Your task to perform on an android device: Open ESPN.com Image 0: 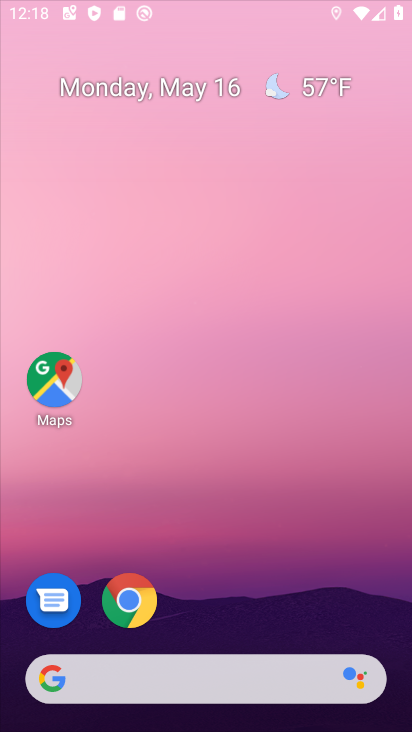
Step 0: drag from (255, 587) to (308, 82)
Your task to perform on an android device: Open ESPN.com Image 1: 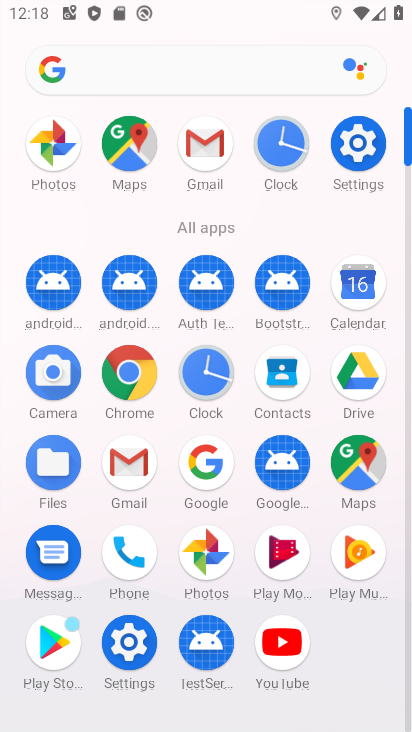
Step 1: click (132, 356)
Your task to perform on an android device: Open ESPN.com Image 2: 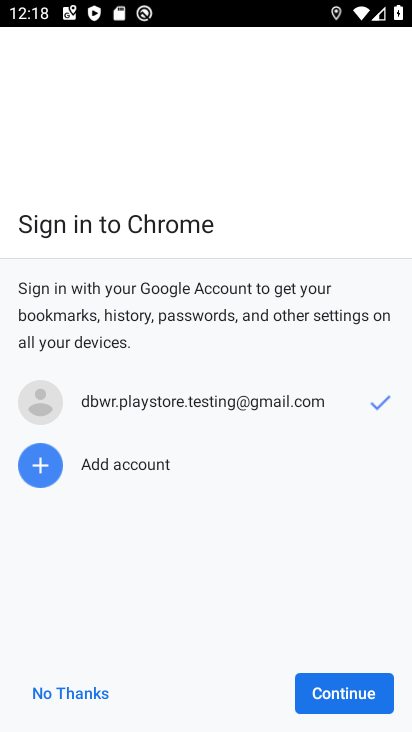
Step 2: click (102, 691)
Your task to perform on an android device: Open ESPN.com Image 3: 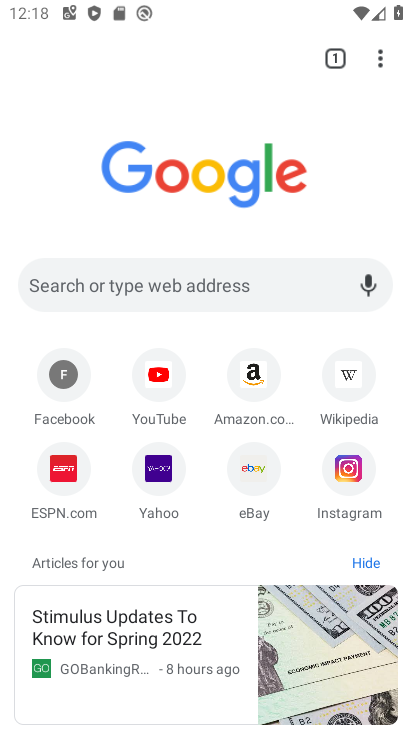
Step 3: click (60, 490)
Your task to perform on an android device: Open ESPN.com Image 4: 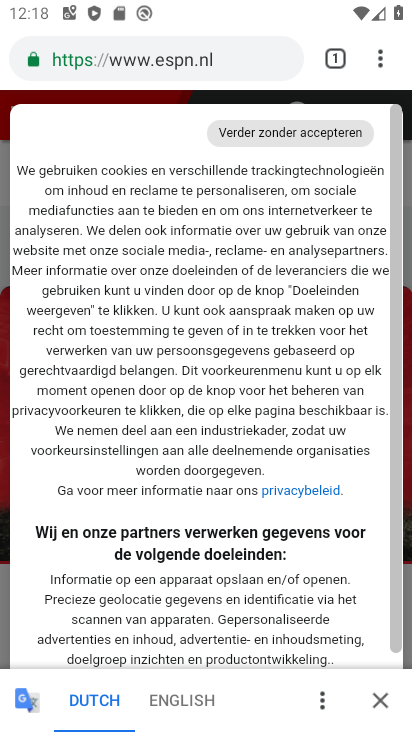
Step 4: task complete